Your task to perform on an android device: What is the recent news? Image 0: 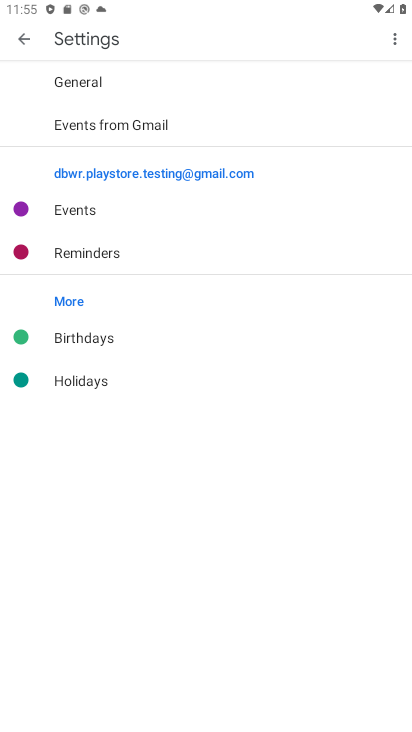
Step 0: press home button
Your task to perform on an android device: What is the recent news? Image 1: 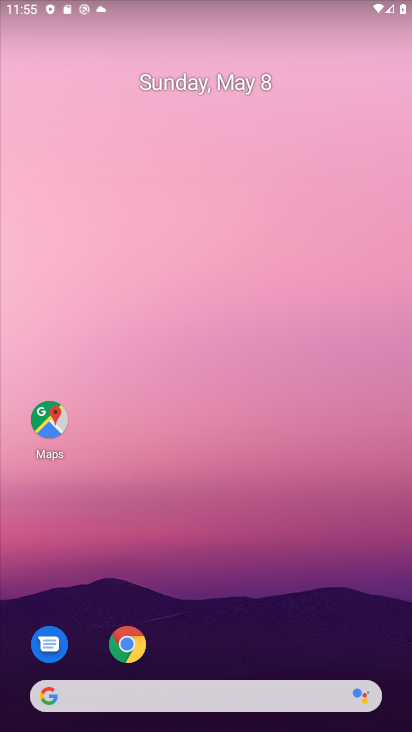
Step 1: task complete